Your task to perform on an android device: turn smart compose on in the gmail app Image 0: 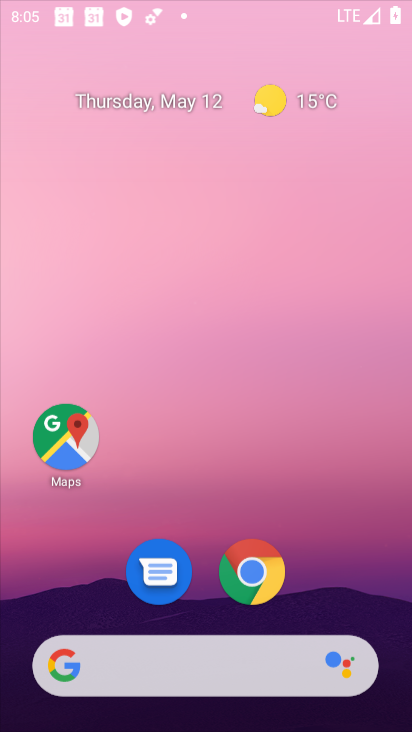
Step 0: drag from (247, 139) to (160, 37)
Your task to perform on an android device: turn smart compose on in the gmail app Image 1: 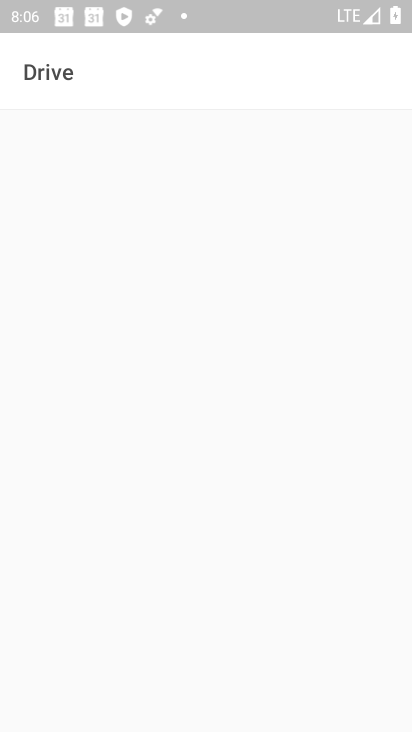
Step 1: press home button
Your task to perform on an android device: turn smart compose on in the gmail app Image 2: 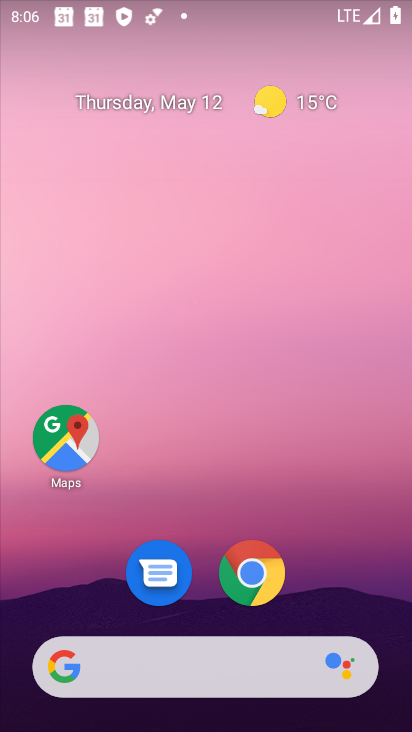
Step 2: drag from (350, 557) to (292, 70)
Your task to perform on an android device: turn smart compose on in the gmail app Image 3: 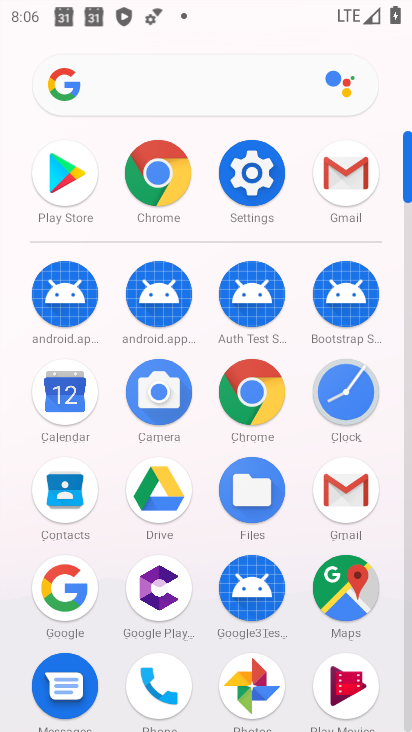
Step 3: click (333, 182)
Your task to perform on an android device: turn smart compose on in the gmail app Image 4: 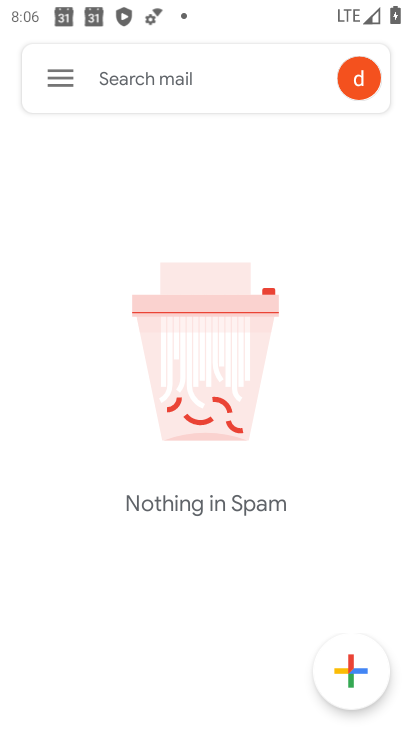
Step 4: click (61, 84)
Your task to perform on an android device: turn smart compose on in the gmail app Image 5: 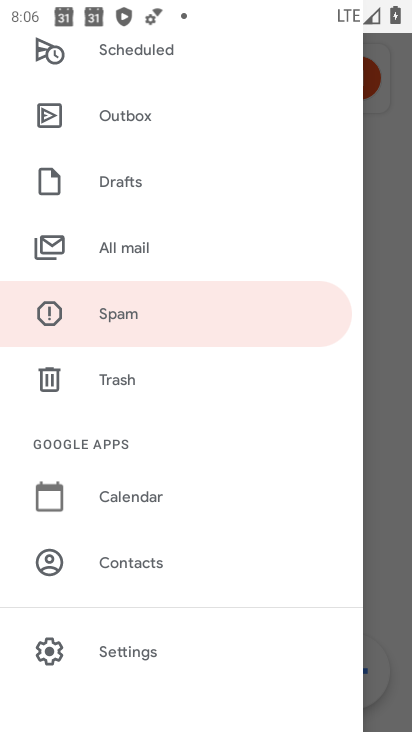
Step 5: click (122, 651)
Your task to perform on an android device: turn smart compose on in the gmail app Image 6: 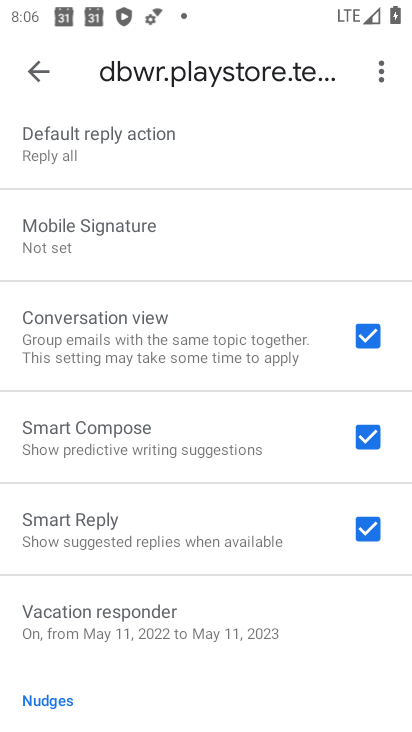
Step 6: task complete